Your task to perform on an android device: turn notification dots off Image 0: 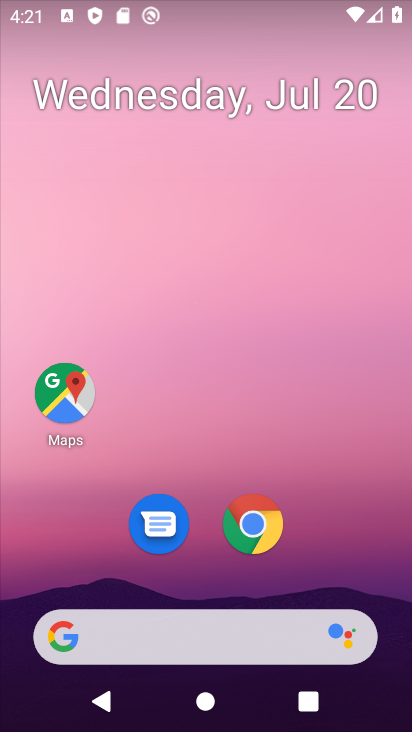
Step 0: drag from (332, 548) to (380, 24)
Your task to perform on an android device: turn notification dots off Image 1: 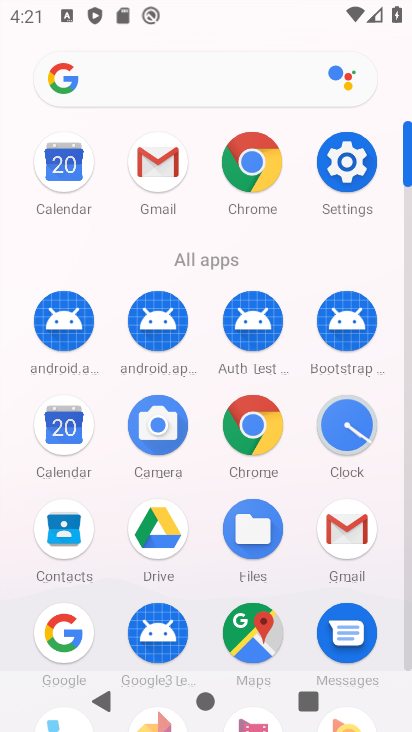
Step 1: click (341, 153)
Your task to perform on an android device: turn notification dots off Image 2: 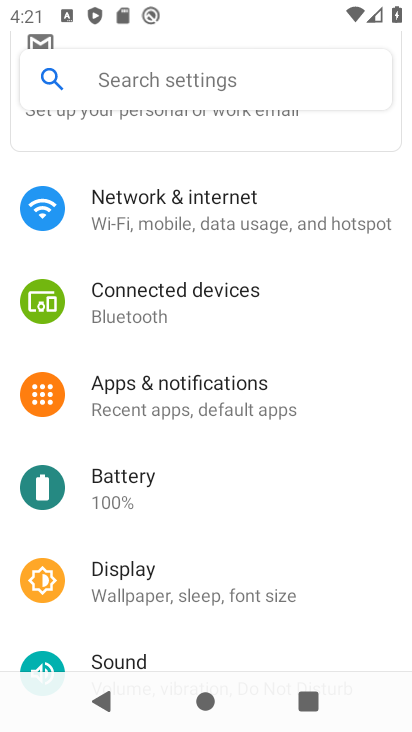
Step 2: click (227, 397)
Your task to perform on an android device: turn notification dots off Image 3: 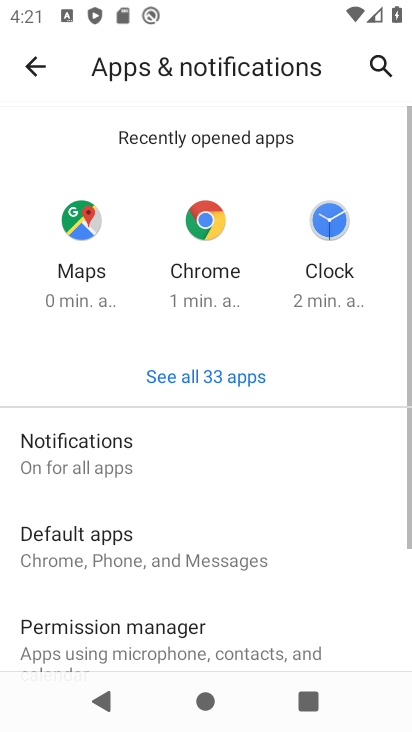
Step 3: click (124, 447)
Your task to perform on an android device: turn notification dots off Image 4: 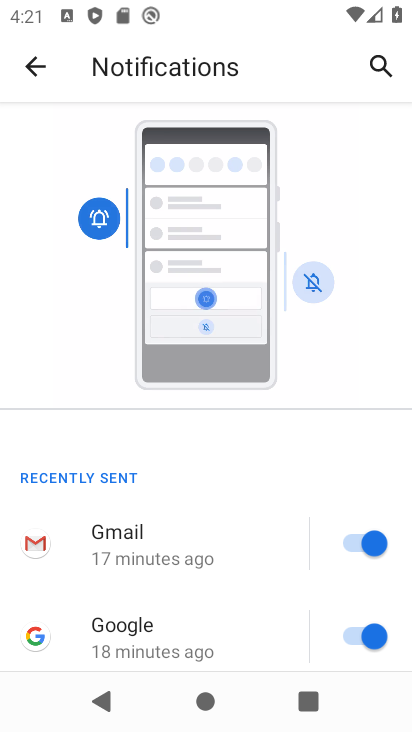
Step 4: drag from (197, 512) to (210, 142)
Your task to perform on an android device: turn notification dots off Image 5: 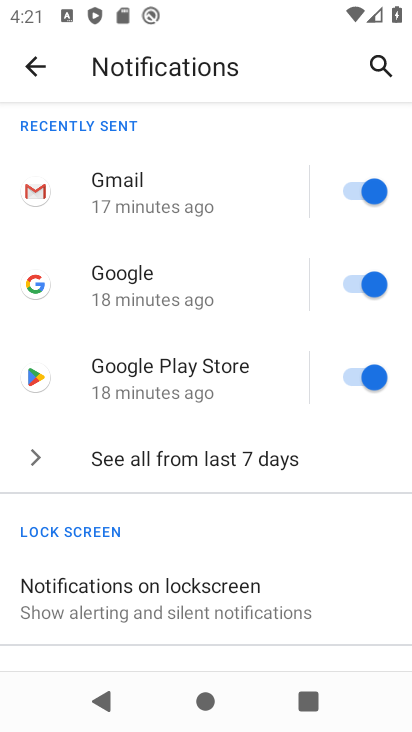
Step 5: drag from (179, 506) to (192, 114)
Your task to perform on an android device: turn notification dots off Image 6: 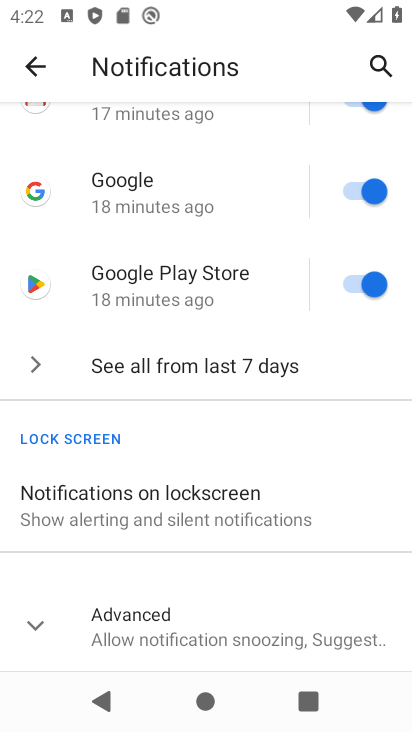
Step 6: click (36, 625)
Your task to perform on an android device: turn notification dots off Image 7: 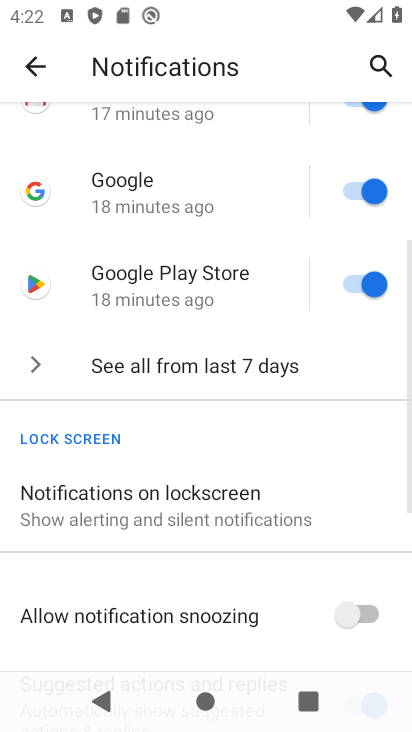
Step 7: drag from (203, 558) to (240, 137)
Your task to perform on an android device: turn notification dots off Image 8: 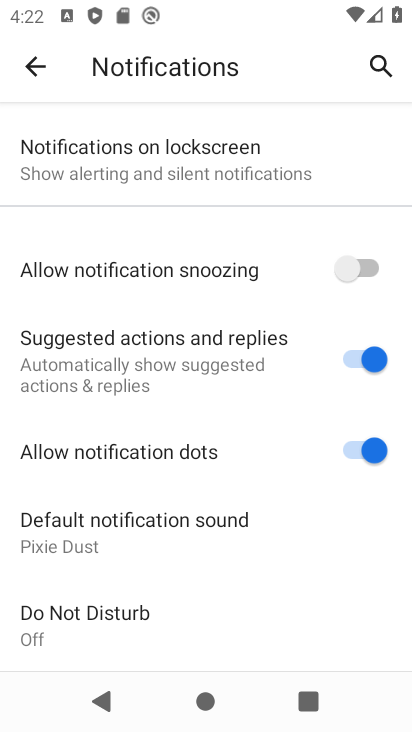
Step 8: click (358, 450)
Your task to perform on an android device: turn notification dots off Image 9: 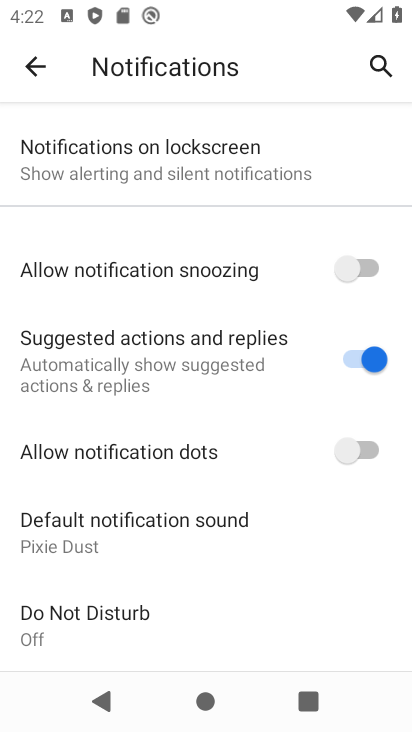
Step 9: task complete